Your task to perform on an android device: Open network settings Image 0: 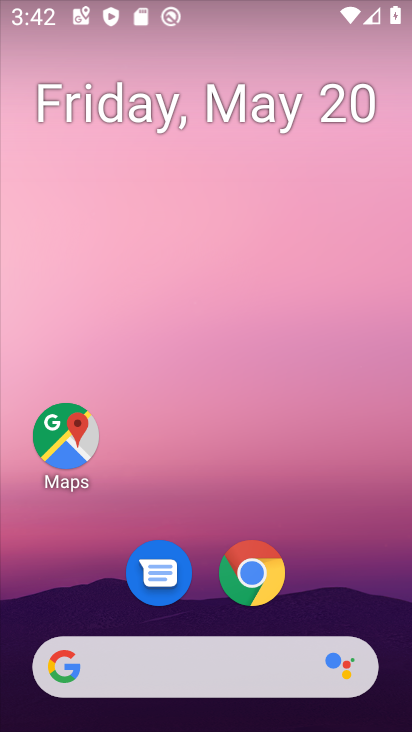
Step 0: drag from (392, 636) to (338, 63)
Your task to perform on an android device: Open network settings Image 1: 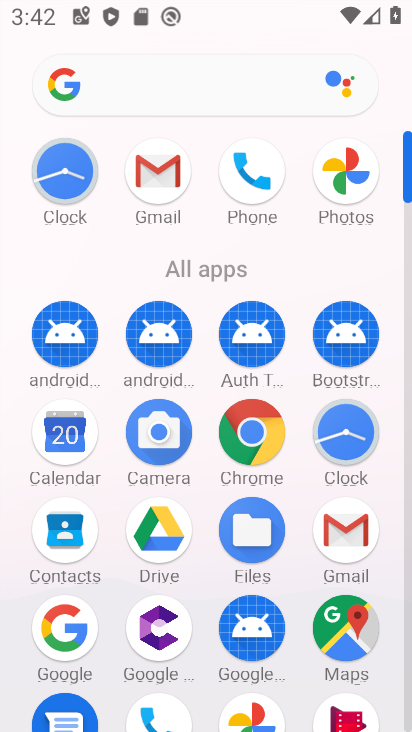
Step 1: click (410, 719)
Your task to perform on an android device: Open network settings Image 2: 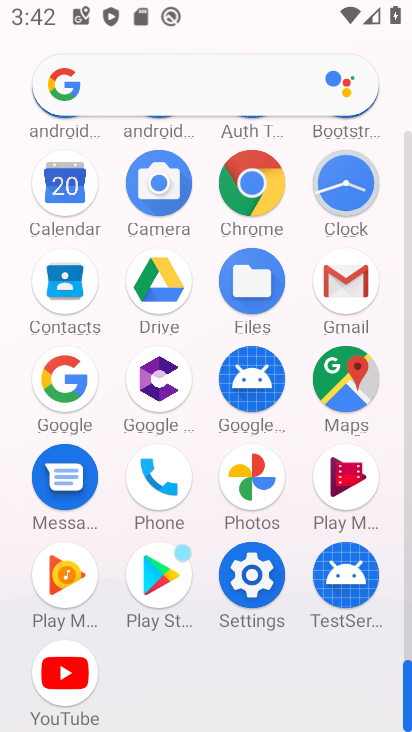
Step 2: click (252, 571)
Your task to perform on an android device: Open network settings Image 3: 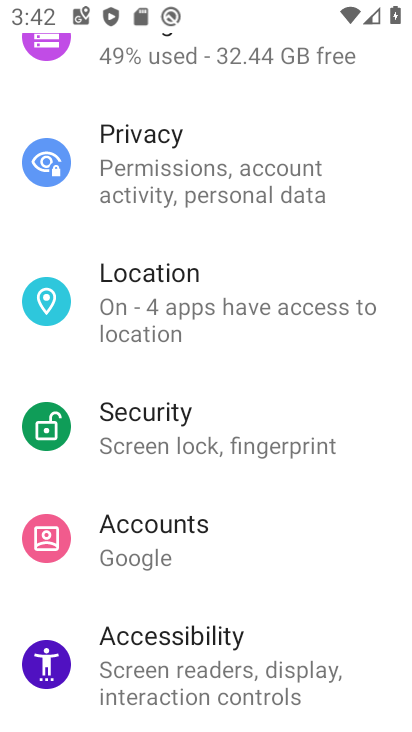
Step 3: drag from (384, 158) to (347, 581)
Your task to perform on an android device: Open network settings Image 4: 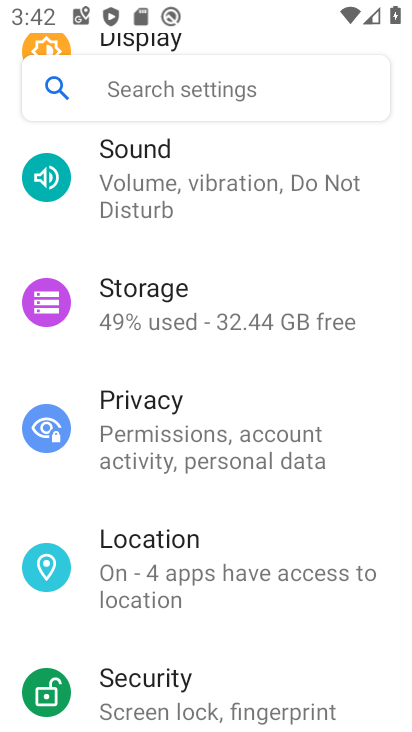
Step 4: drag from (334, 220) to (319, 660)
Your task to perform on an android device: Open network settings Image 5: 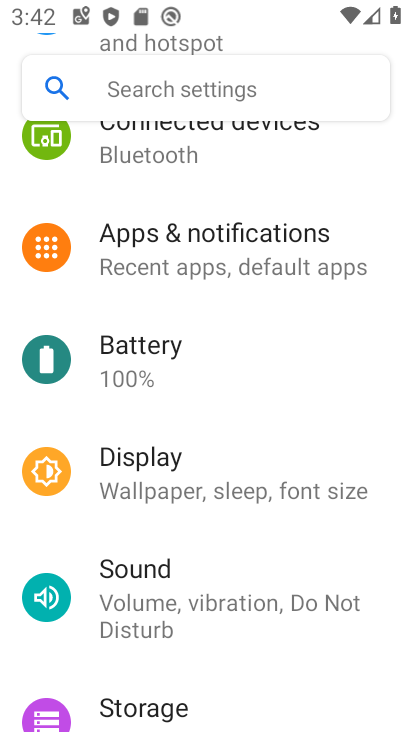
Step 5: click (313, 544)
Your task to perform on an android device: Open network settings Image 6: 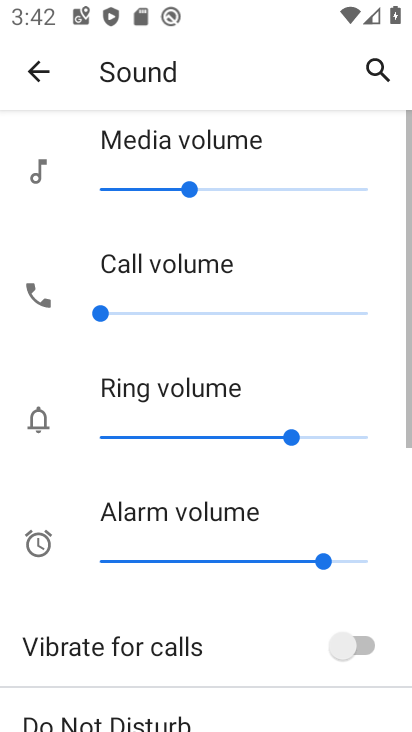
Step 6: drag from (358, 223) to (346, 436)
Your task to perform on an android device: Open network settings Image 7: 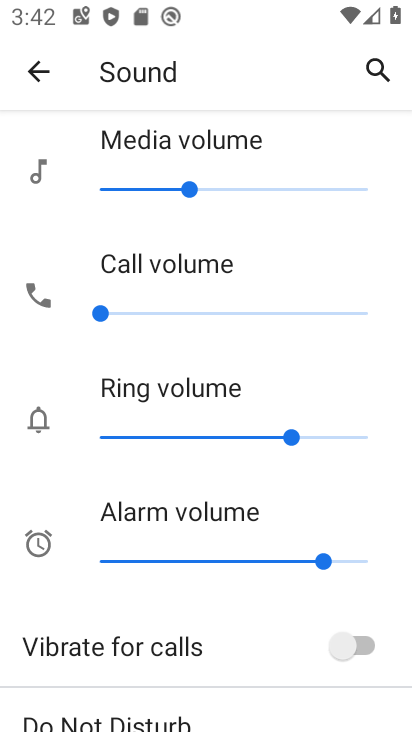
Step 7: press back button
Your task to perform on an android device: Open network settings Image 8: 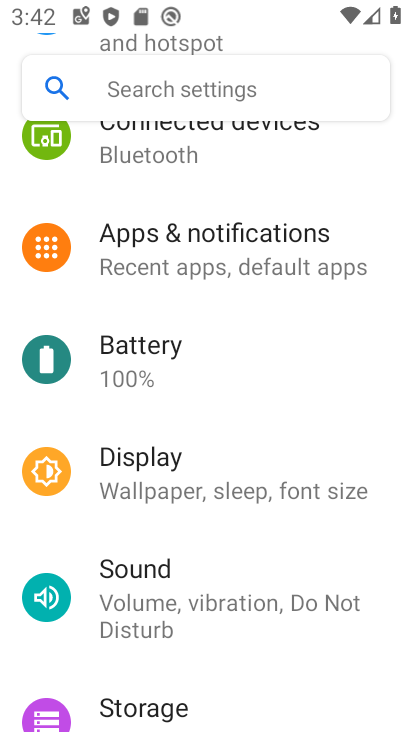
Step 8: drag from (304, 177) to (304, 458)
Your task to perform on an android device: Open network settings Image 9: 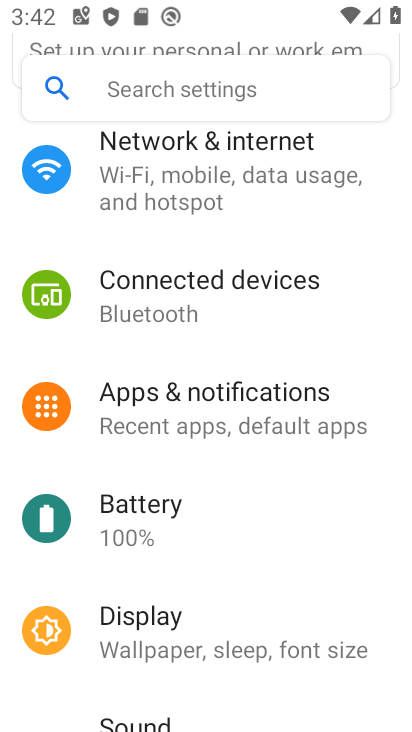
Step 9: click (173, 165)
Your task to perform on an android device: Open network settings Image 10: 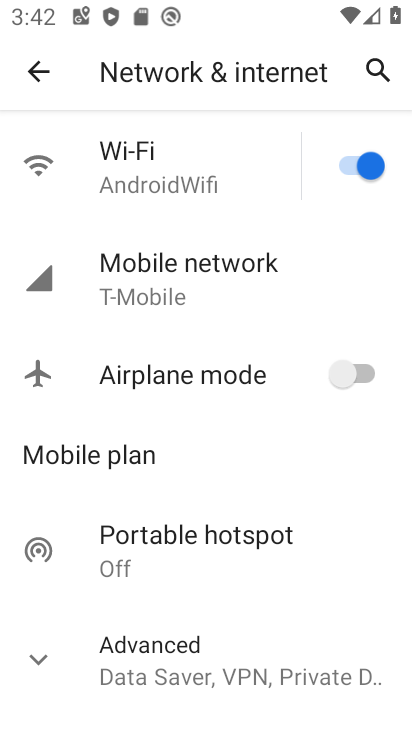
Step 10: click (183, 262)
Your task to perform on an android device: Open network settings Image 11: 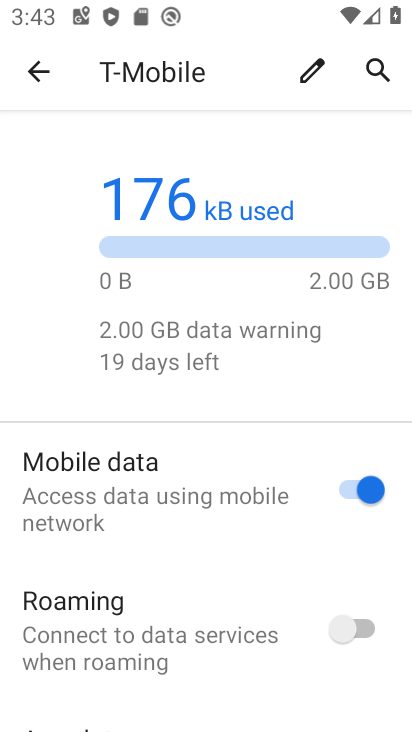
Step 11: task complete